Your task to perform on an android device: toggle show notifications on the lock screen Image 0: 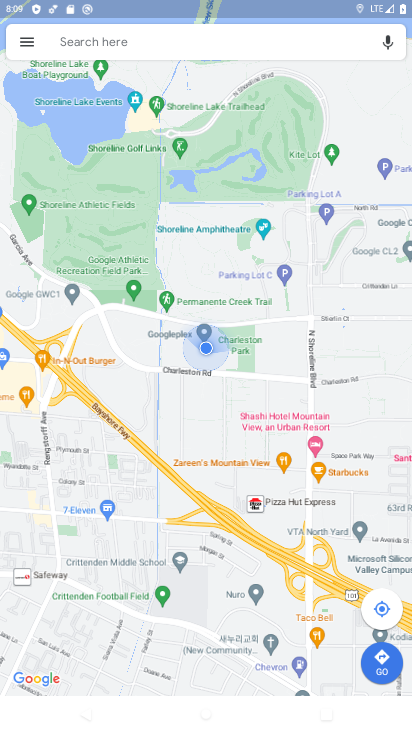
Step 0: press home button
Your task to perform on an android device: toggle show notifications on the lock screen Image 1: 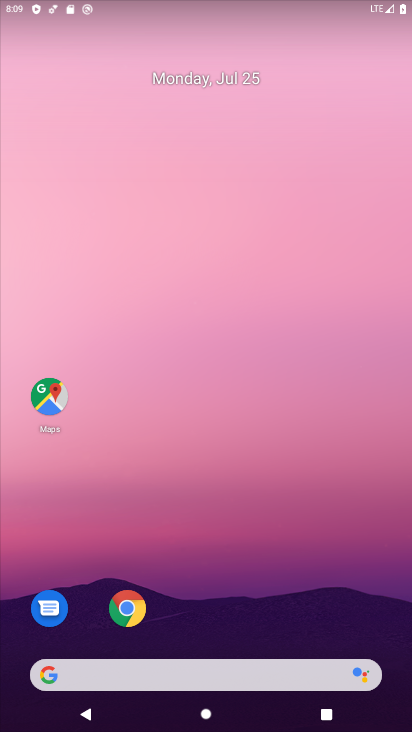
Step 1: drag from (232, 718) to (194, 333)
Your task to perform on an android device: toggle show notifications on the lock screen Image 2: 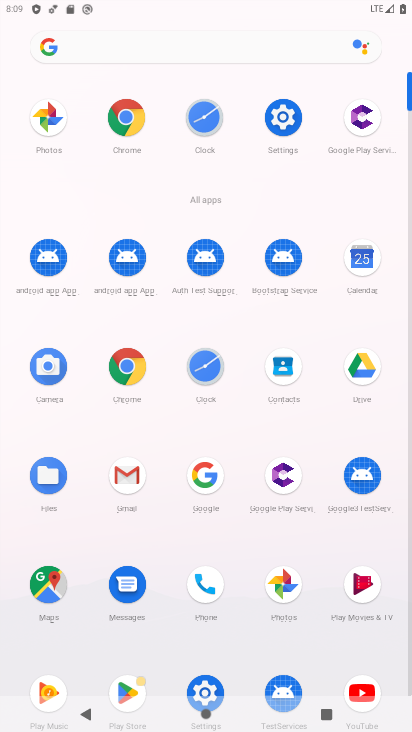
Step 2: click (291, 116)
Your task to perform on an android device: toggle show notifications on the lock screen Image 3: 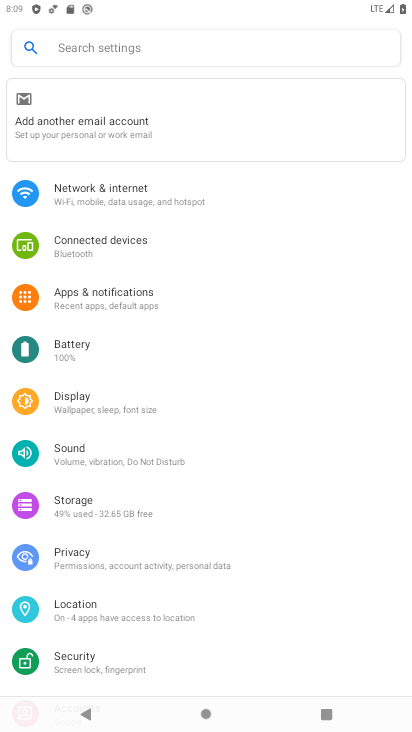
Step 3: click (110, 288)
Your task to perform on an android device: toggle show notifications on the lock screen Image 4: 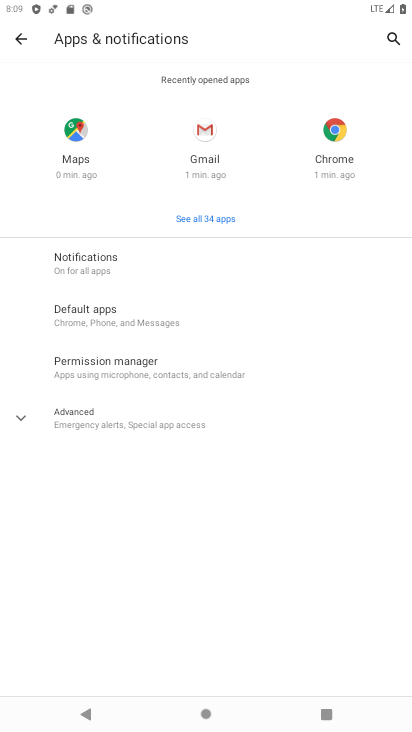
Step 4: click (94, 261)
Your task to perform on an android device: toggle show notifications on the lock screen Image 5: 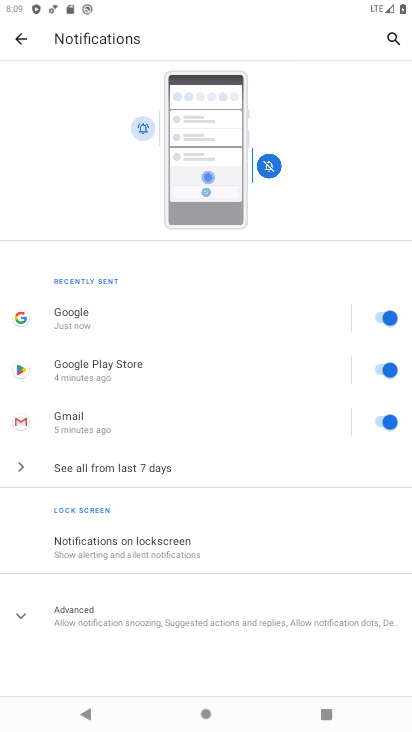
Step 5: click (146, 615)
Your task to perform on an android device: toggle show notifications on the lock screen Image 6: 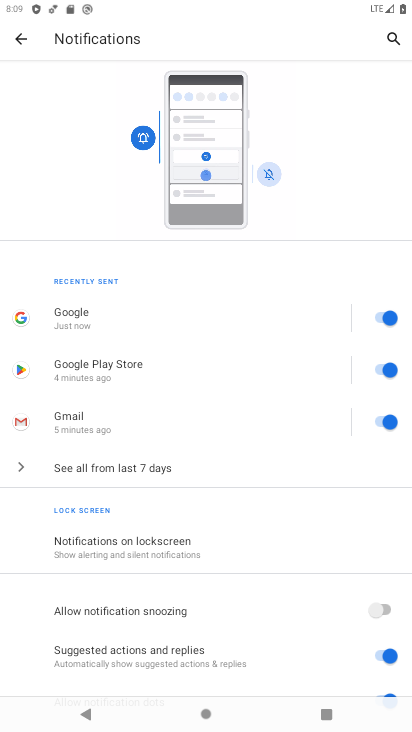
Step 6: click (171, 551)
Your task to perform on an android device: toggle show notifications on the lock screen Image 7: 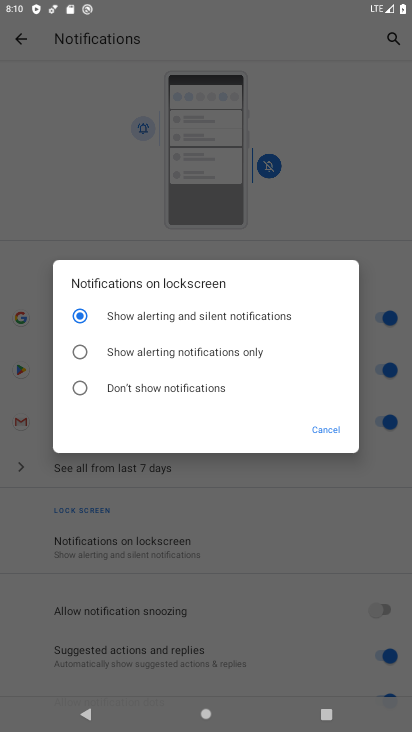
Step 7: click (81, 349)
Your task to perform on an android device: toggle show notifications on the lock screen Image 8: 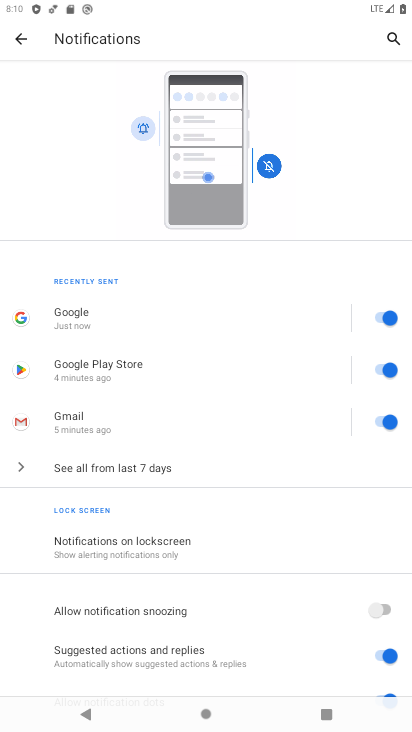
Step 8: task complete